Your task to perform on an android device: Look up the new steph curry shoes Image 0: 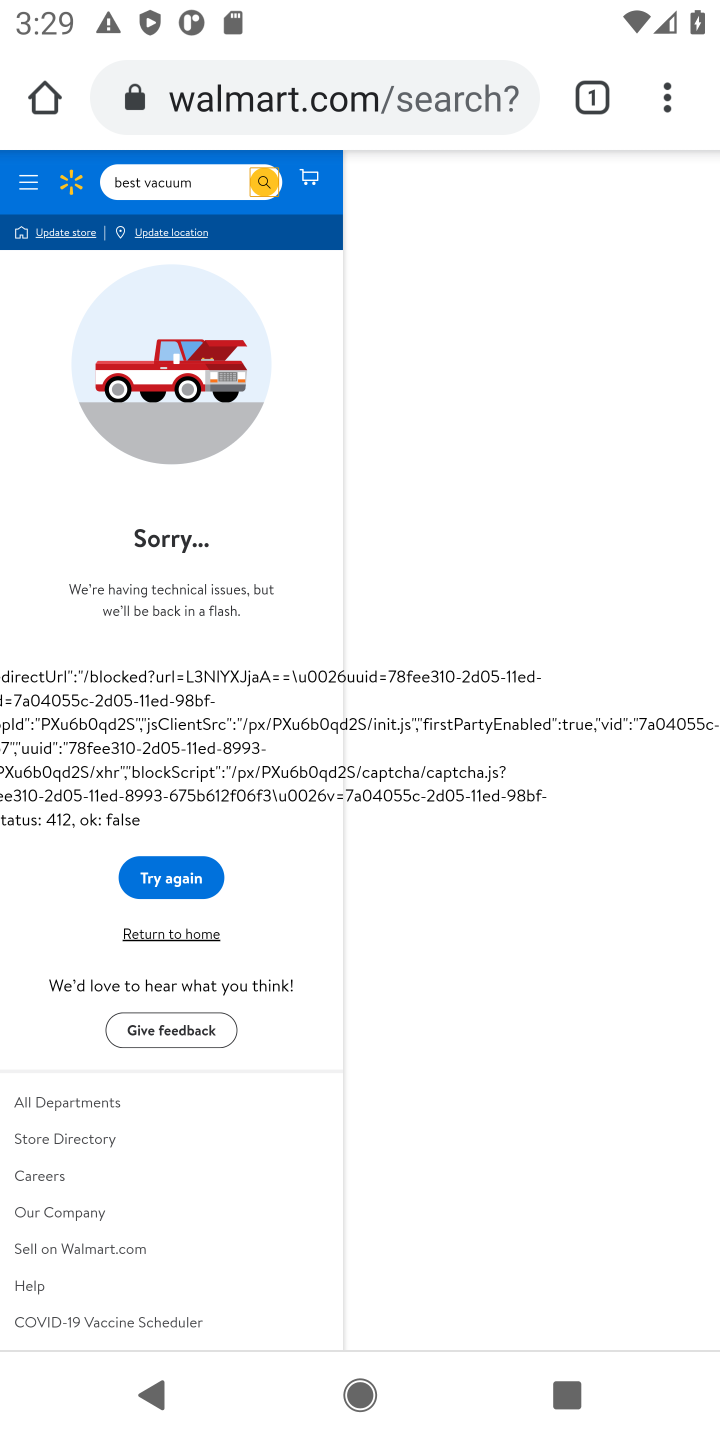
Step 0: click (474, 92)
Your task to perform on an android device: Look up the new steph curry shoes Image 1: 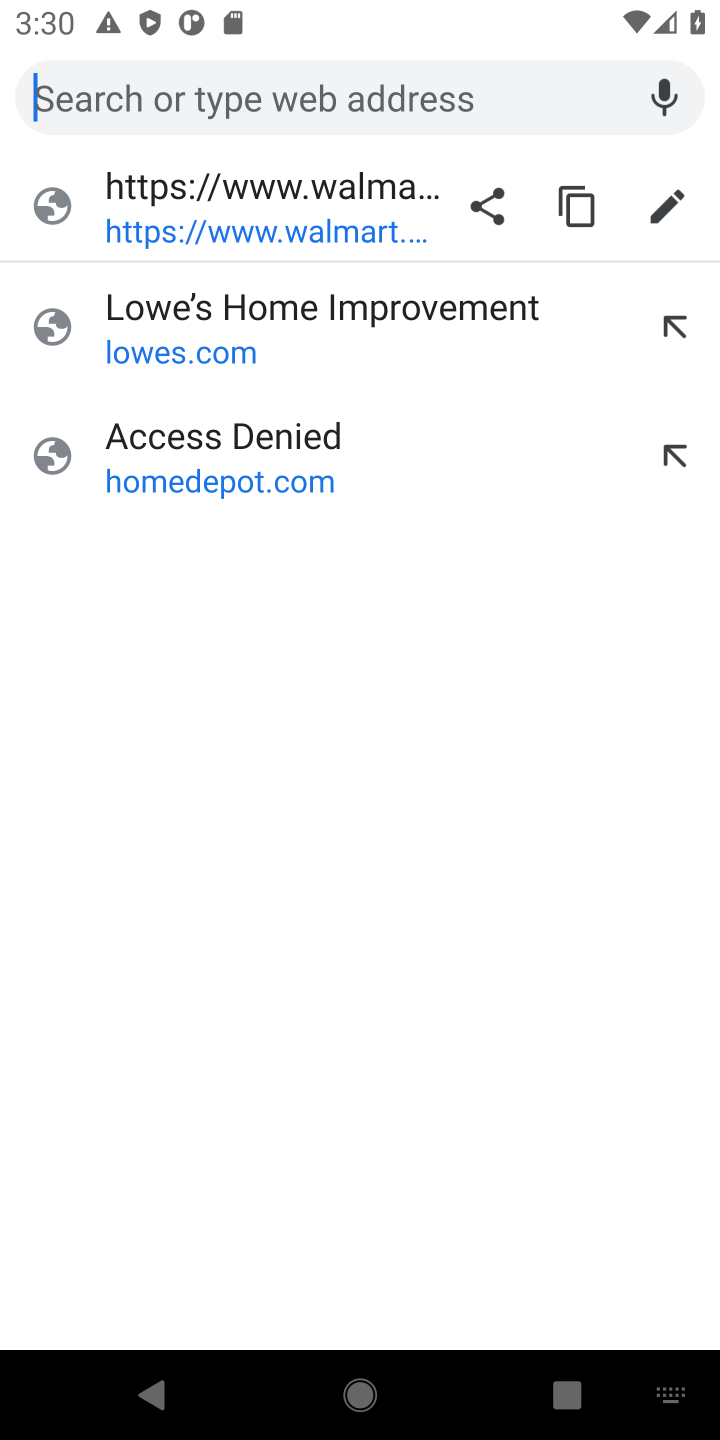
Step 1: type "new steph curry shoes"
Your task to perform on an android device: Look up the new steph curry shoes Image 2: 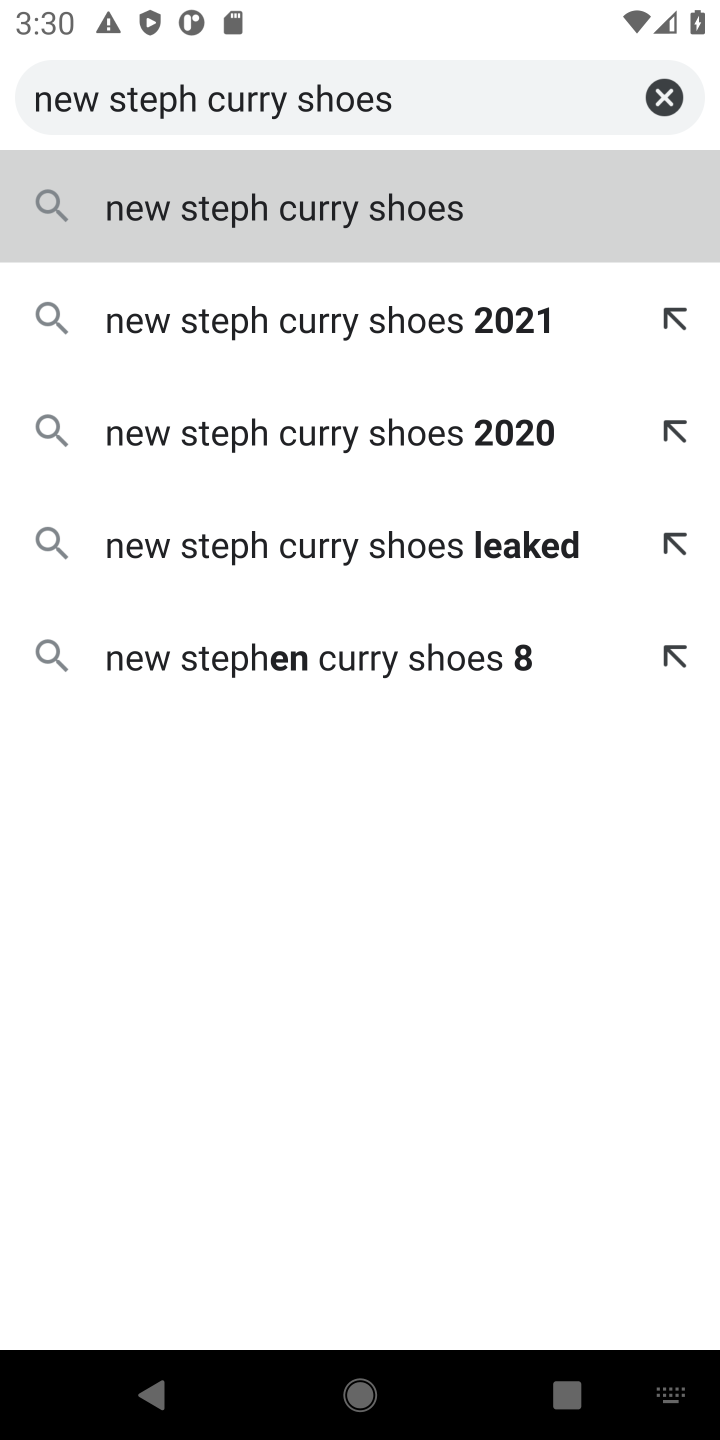
Step 2: click (530, 214)
Your task to perform on an android device: Look up the new steph curry shoes Image 3: 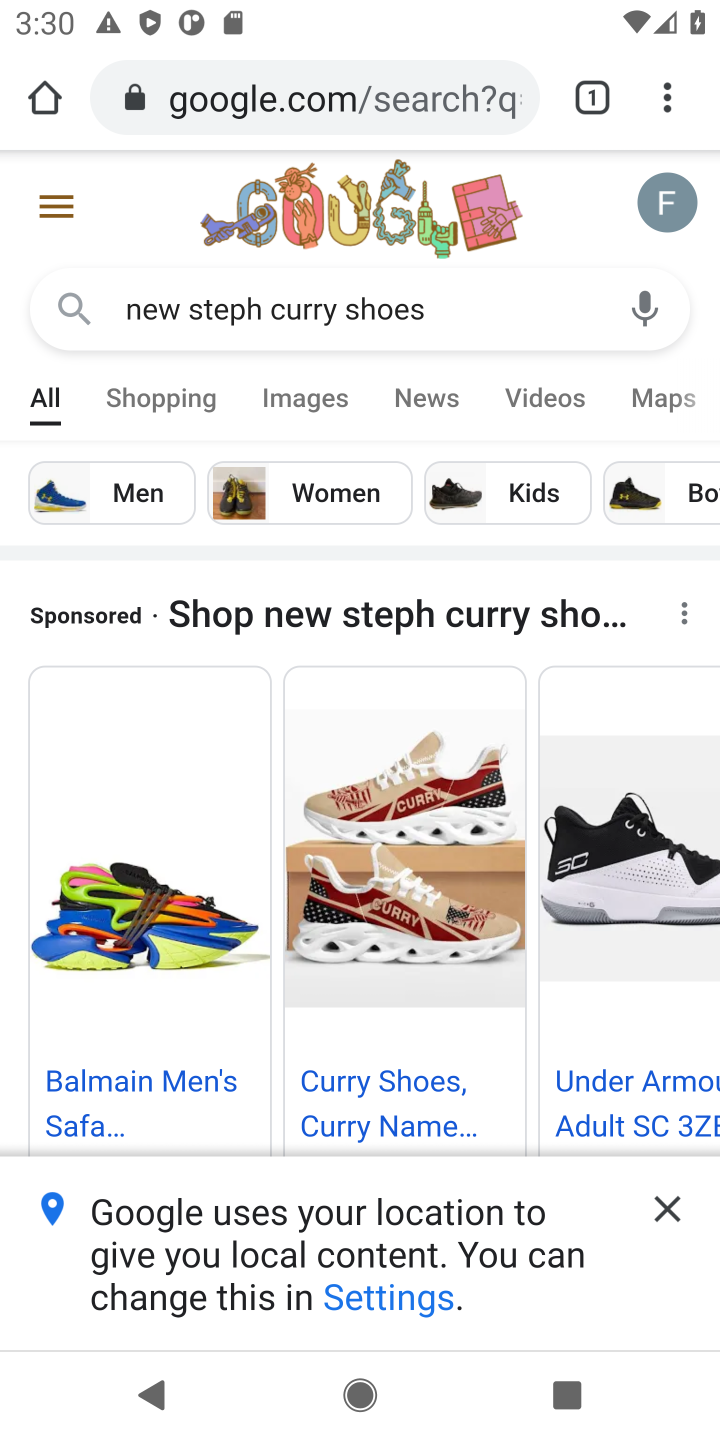
Step 3: click (661, 1200)
Your task to perform on an android device: Look up the new steph curry shoes Image 4: 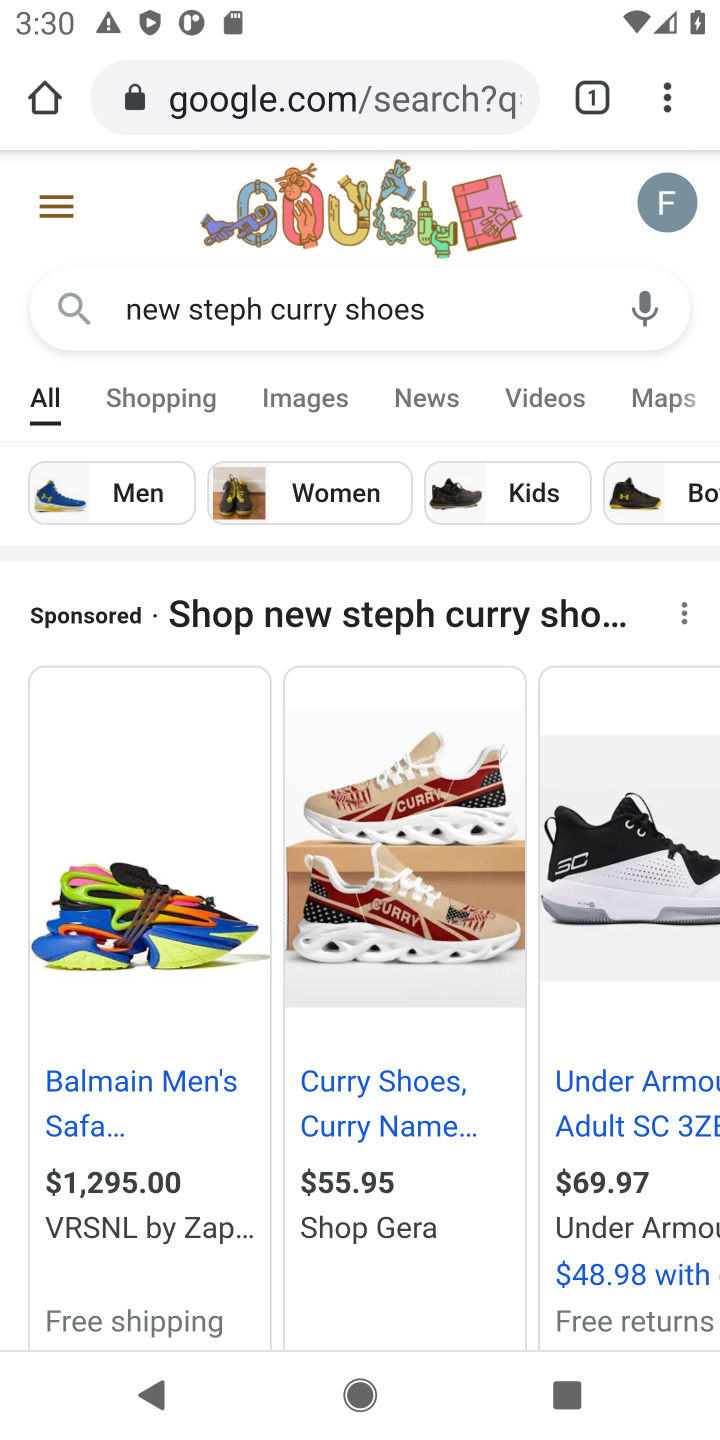
Step 4: task complete